Your task to perform on an android device: turn smart compose on in the gmail app Image 0: 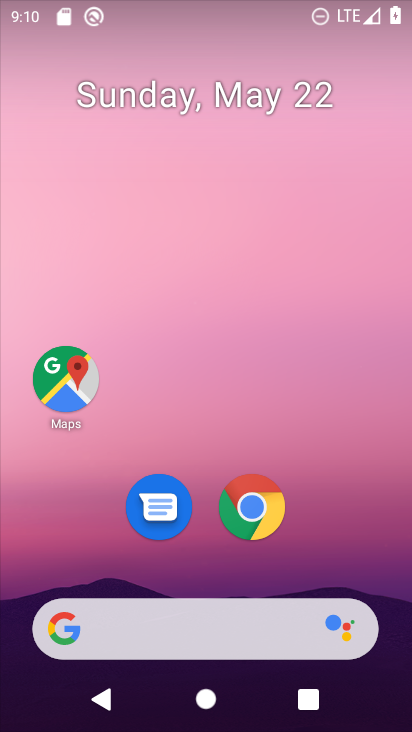
Step 0: drag from (257, 647) to (325, 44)
Your task to perform on an android device: turn smart compose on in the gmail app Image 1: 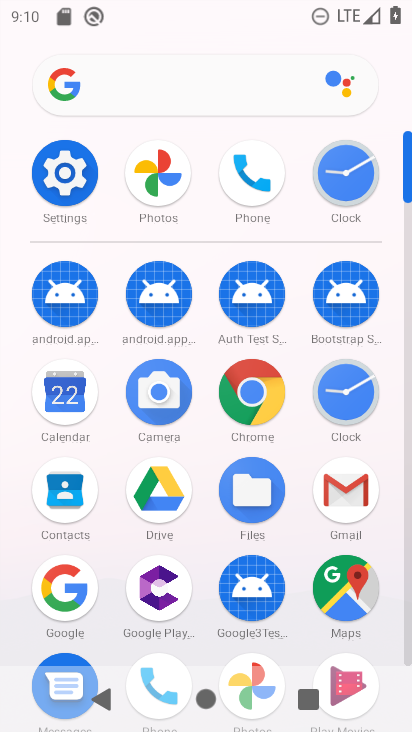
Step 1: click (336, 484)
Your task to perform on an android device: turn smart compose on in the gmail app Image 2: 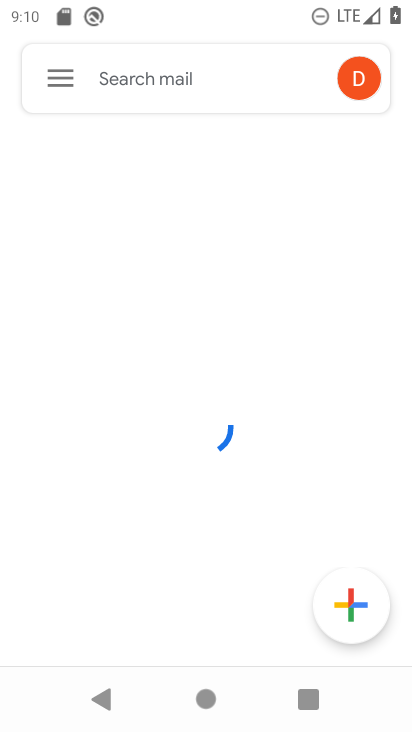
Step 2: click (59, 79)
Your task to perform on an android device: turn smart compose on in the gmail app Image 3: 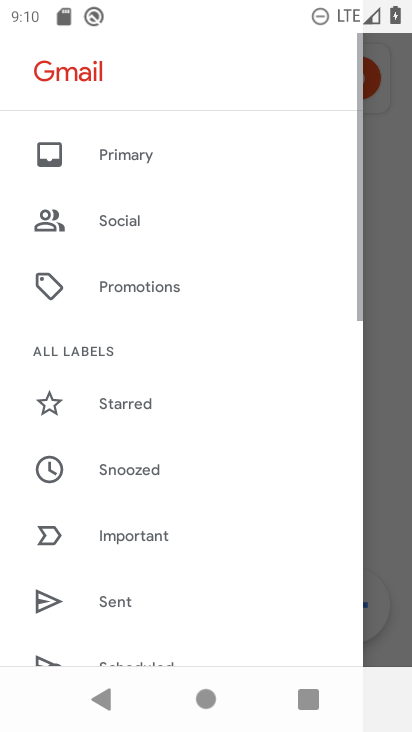
Step 3: drag from (184, 621) to (219, 25)
Your task to perform on an android device: turn smart compose on in the gmail app Image 4: 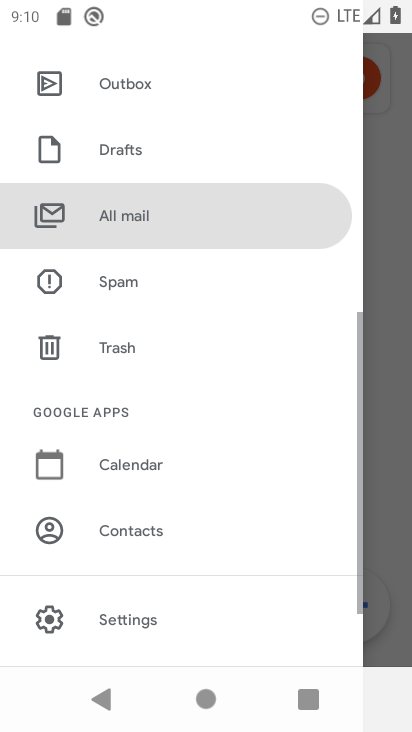
Step 4: click (164, 626)
Your task to perform on an android device: turn smart compose on in the gmail app Image 5: 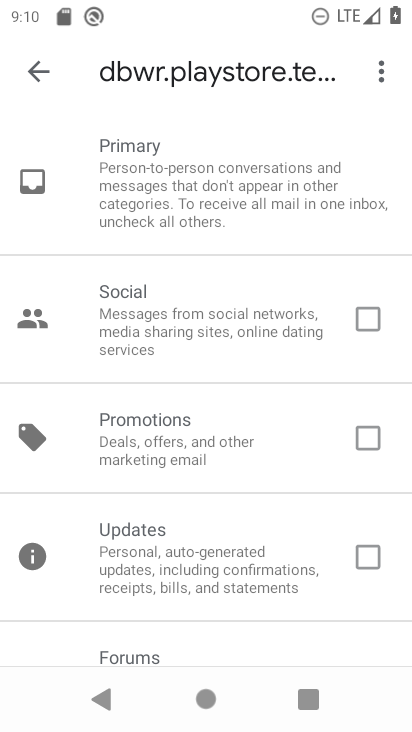
Step 5: drag from (294, 232) to (207, 727)
Your task to perform on an android device: turn smart compose on in the gmail app Image 6: 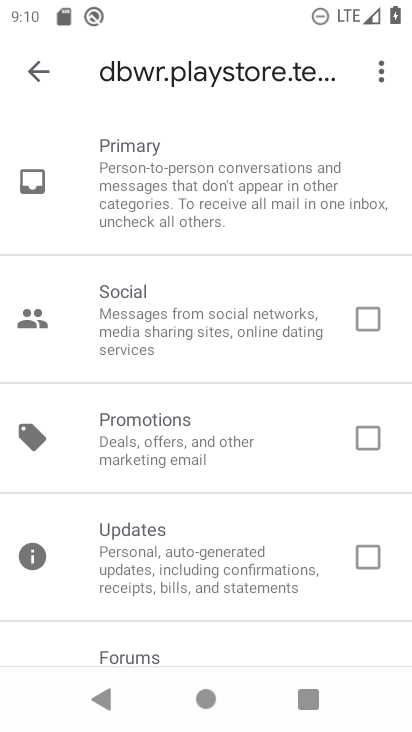
Step 6: click (33, 74)
Your task to perform on an android device: turn smart compose on in the gmail app Image 7: 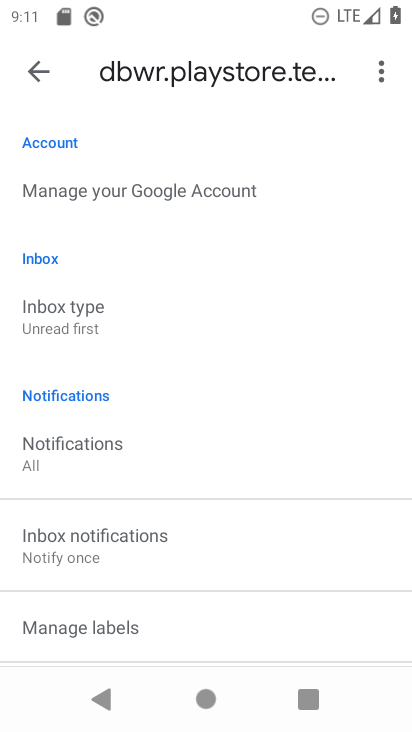
Step 7: task complete